Your task to perform on an android device: Open the stopwatch Image 0: 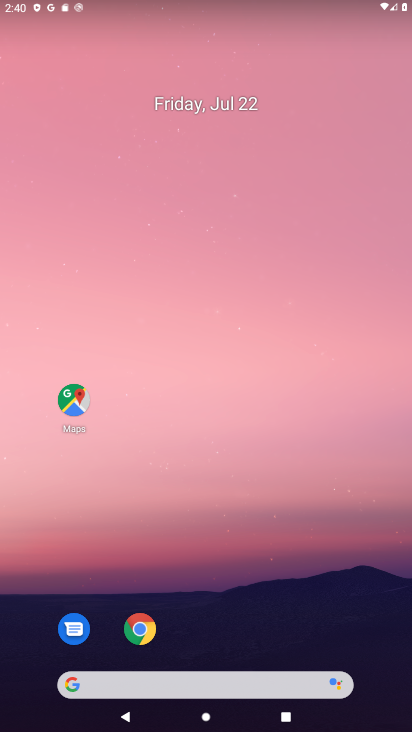
Step 0: drag from (235, 572) to (225, 118)
Your task to perform on an android device: Open the stopwatch Image 1: 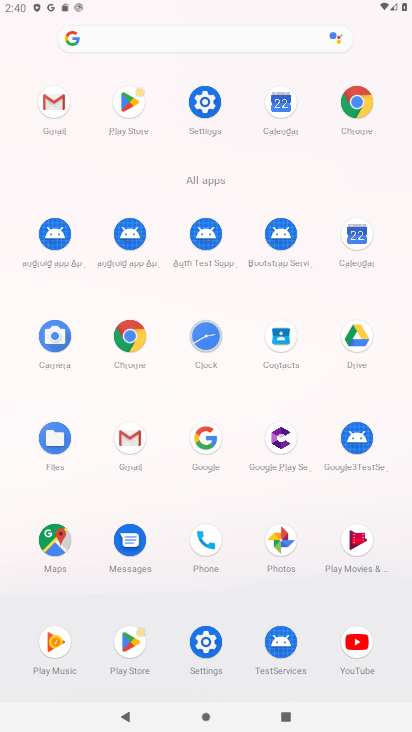
Step 1: click (208, 336)
Your task to perform on an android device: Open the stopwatch Image 2: 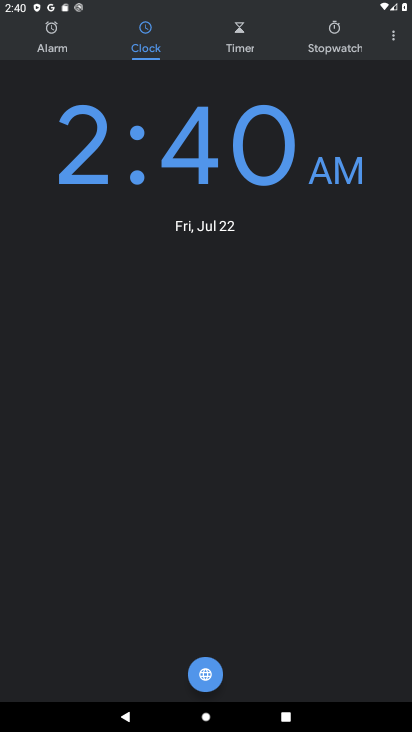
Step 2: click (332, 28)
Your task to perform on an android device: Open the stopwatch Image 3: 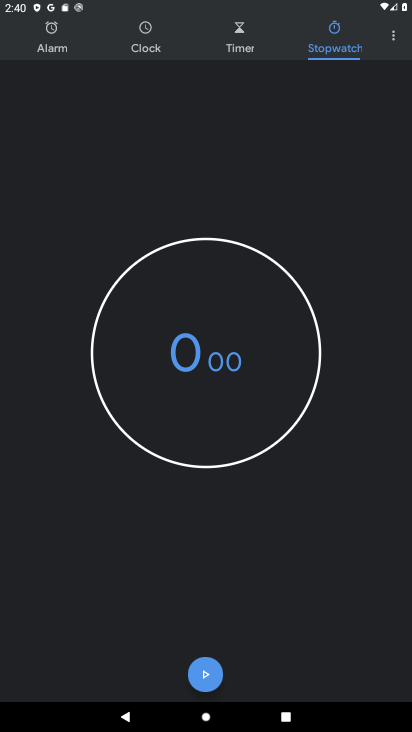
Step 3: task complete